Your task to perform on an android device: What's the weather like in Paris? Image 0: 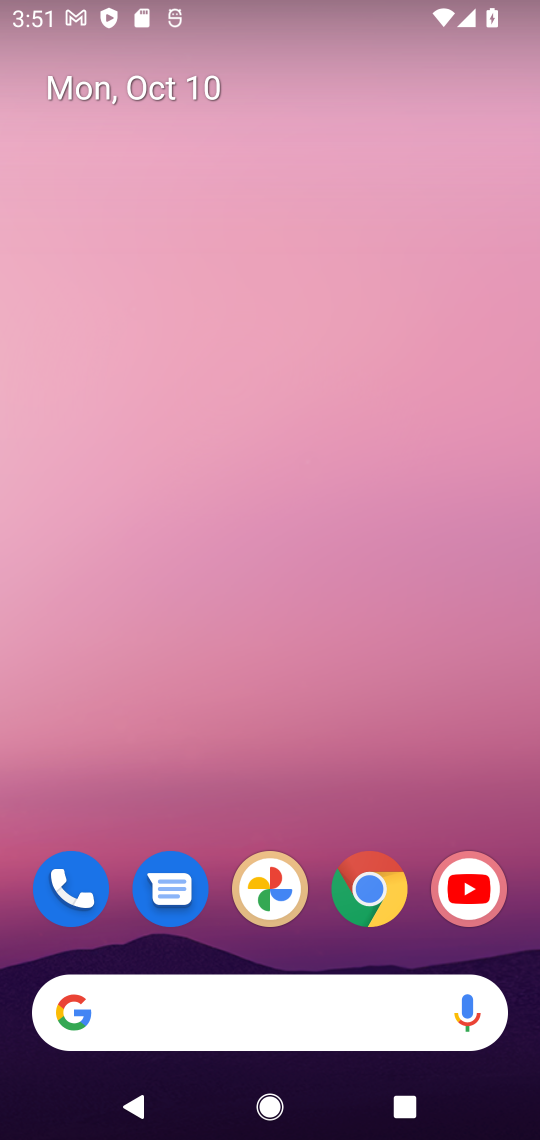
Step 0: click (363, 887)
Your task to perform on an android device: What's the weather like in Paris? Image 1: 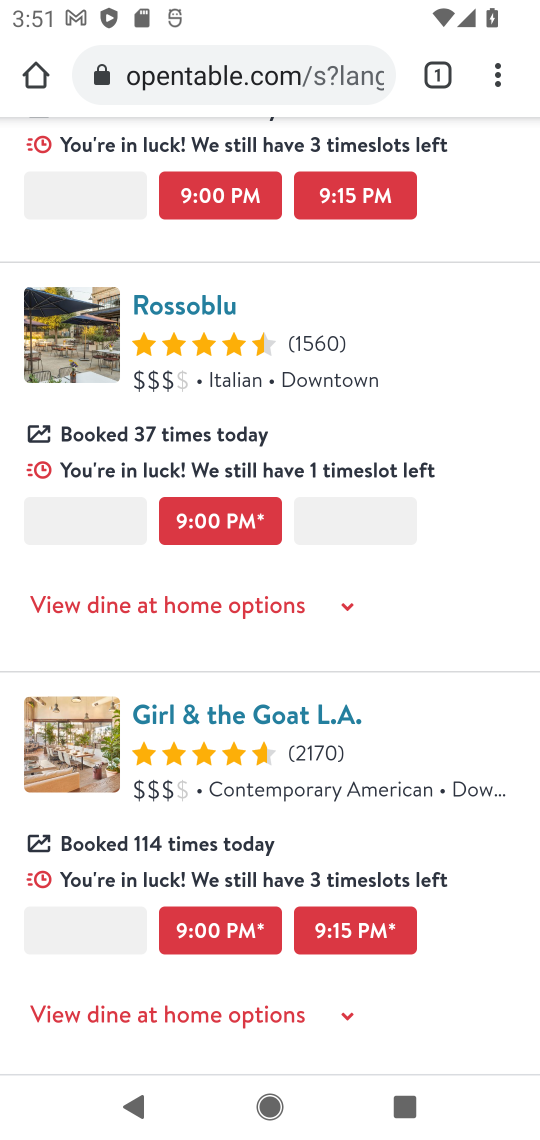
Step 1: click (269, 50)
Your task to perform on an android device: What's the weather like in Paris? Image 2: 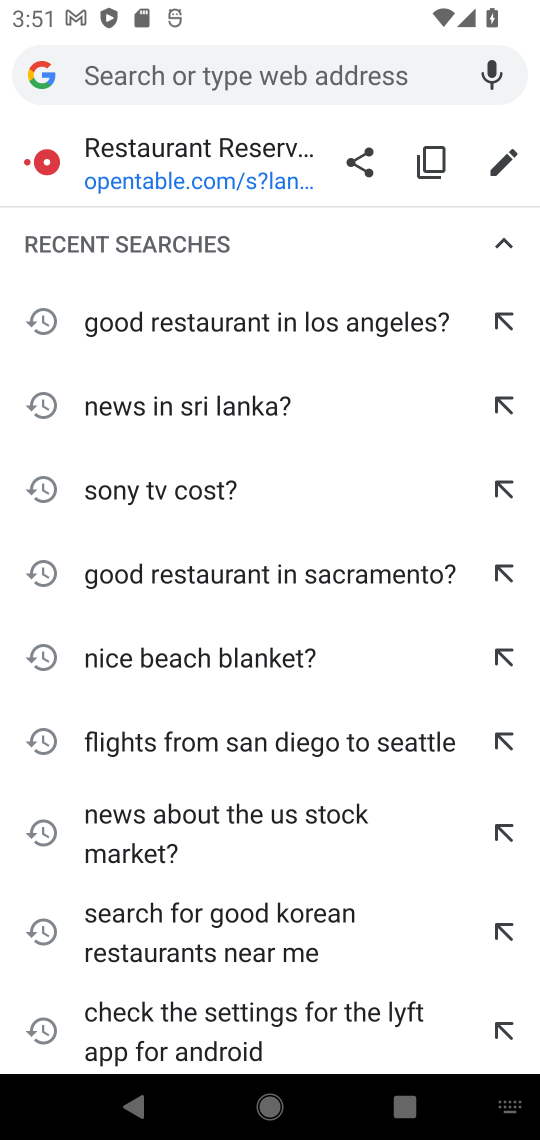
Step 2: type " weather like in Paris?"
Your task to perform on an android device: What's the weather like in Paris? Image 3: 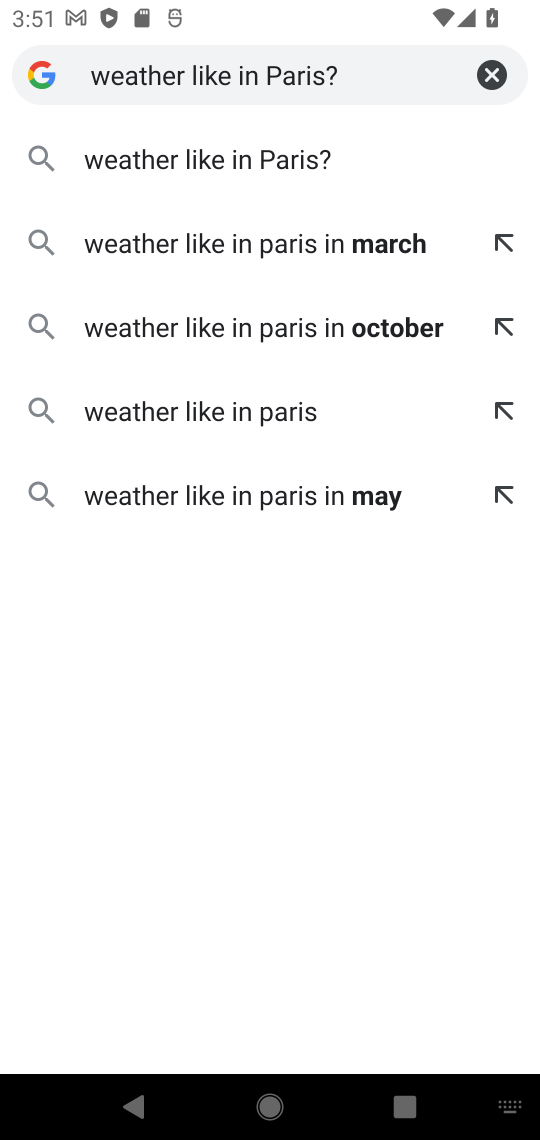
Step 3: click (196, 140)
Your task to perform on an android device: What's the weather like in Paris? Image 4: 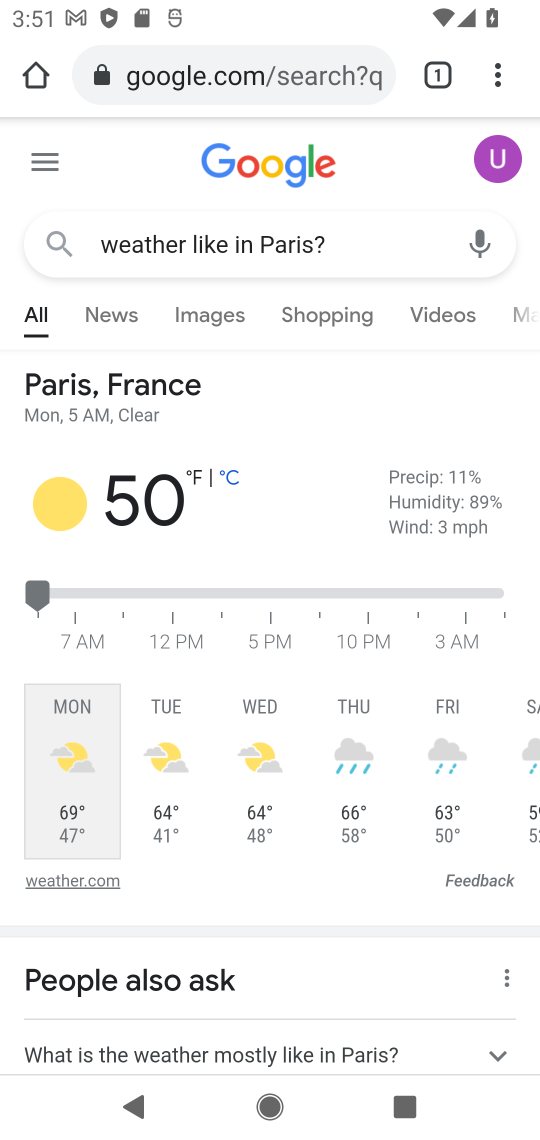
Step 4: task complete